Your task to perform on an android device: open a new tab in the chrome app Image 0: 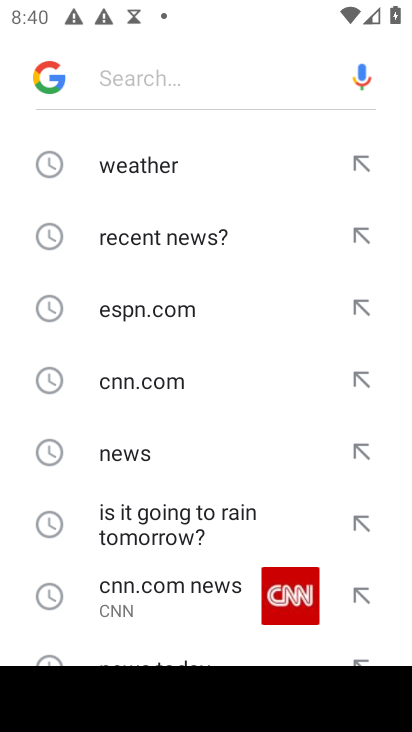
Step 0: press home button
Your task to perform on an android device: open a new tab in the chrome app Image 1: 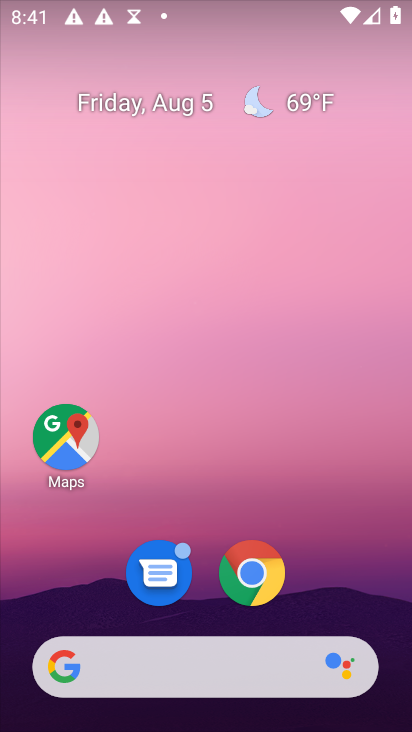
Step 1: click (251, 575)
Your task to perform on an android device: open a new tab in the chrome app Image 2: 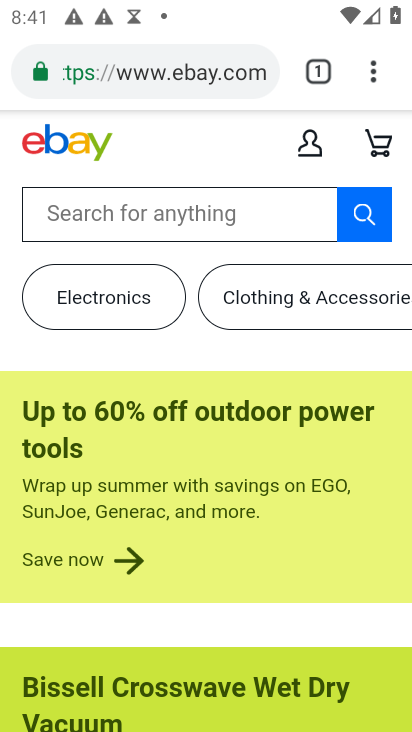
Step 2: click (375, 76)
Your task to perform on an android device: open a new tab in the chrome app Image 3: 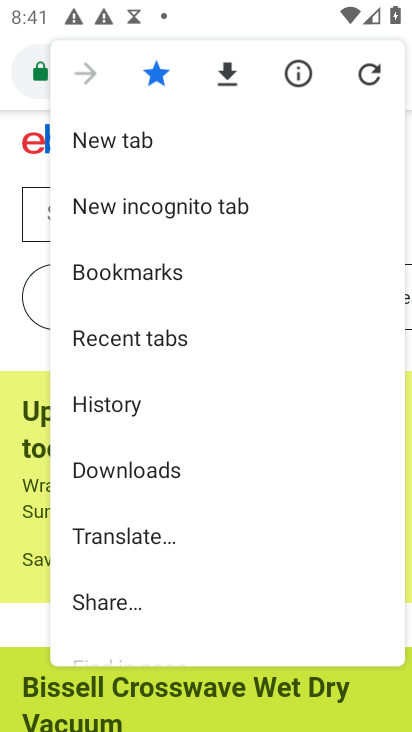
Step 3: click (116, 139)
Your task to perform on an android device: open a new tab in the chrome app Image 4: 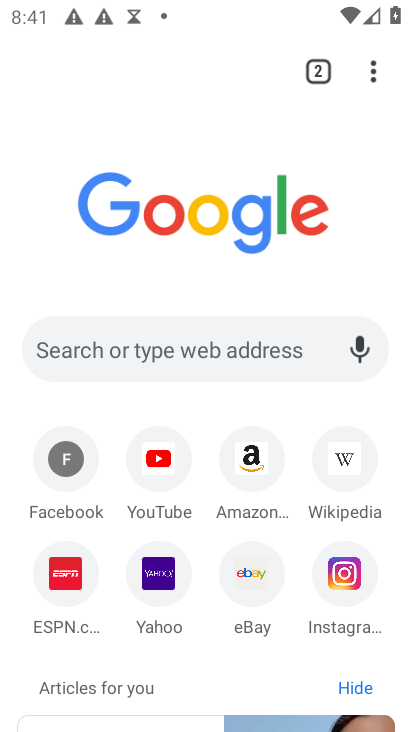
Step 4: task complete